Your task to perform on an android device: turn on the 12-hour format for clock Image 0: 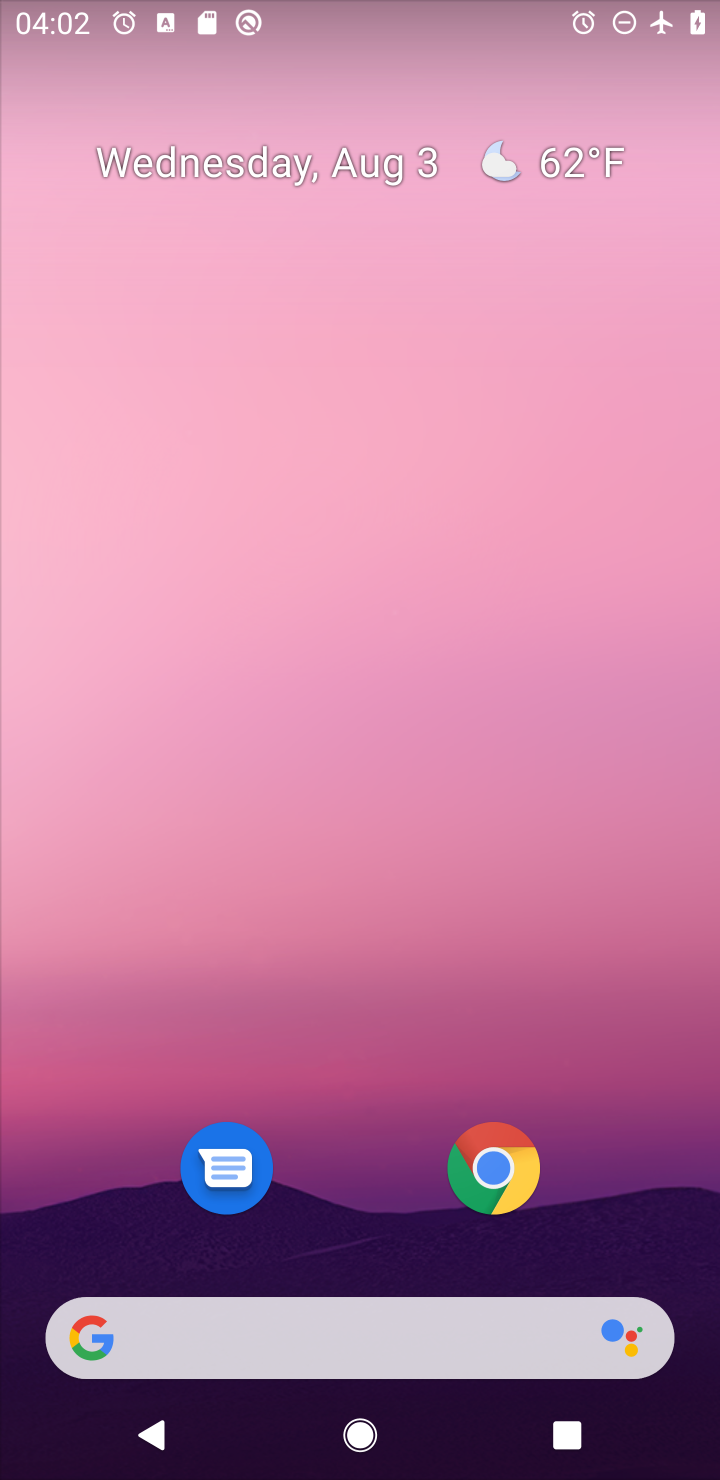
Step 0: drag from (659, 1157) to (620, 195)
Your task to perform on an android device: turn on the 12-hour format for clock Image 1: 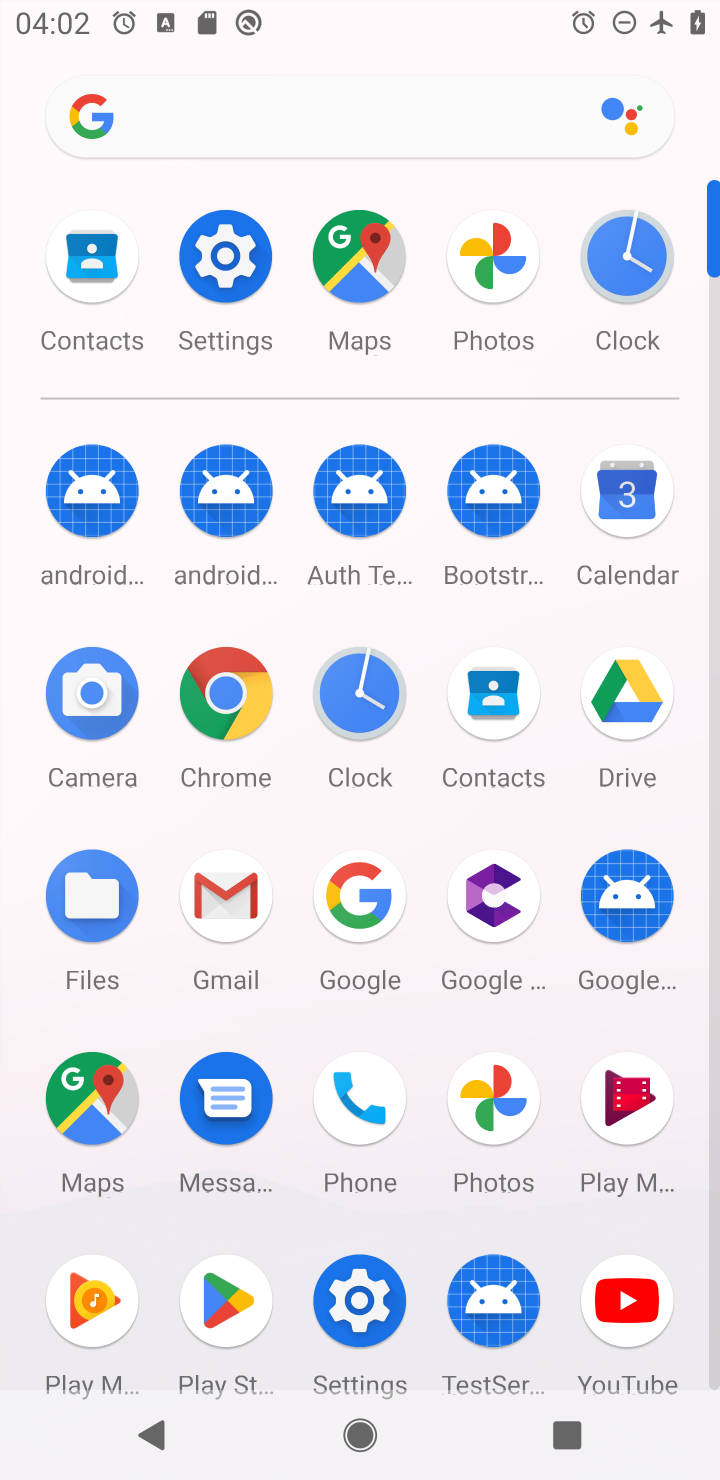
Step 1: click (349, 691)
Your task to perform on an android device: turn on the 12-hour format for clock Image 2: 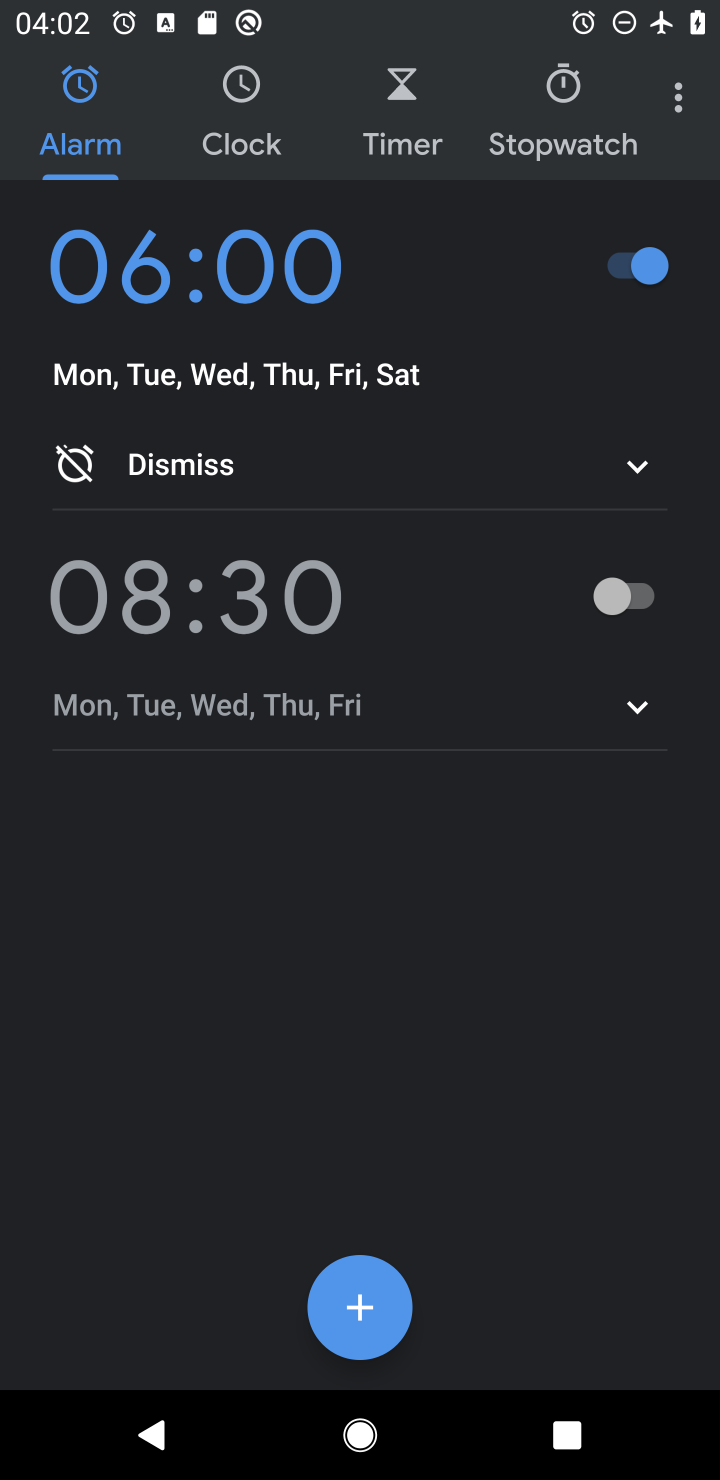
Step 2: click (675, 112)
Your task to perform on an android device: turn on the 12-hour format for clock Image 3: 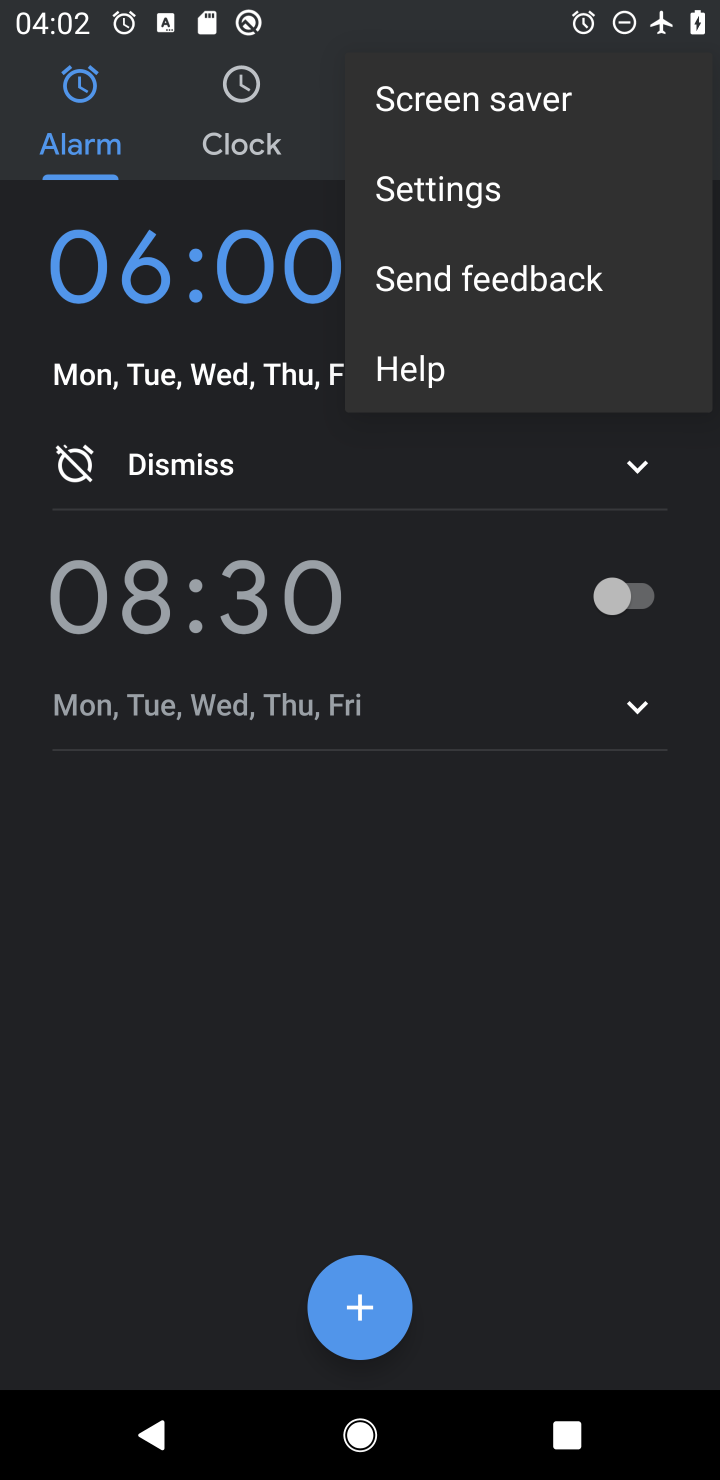
Step 3: click (424, 190)
Your task to perform on an android device: turn on the 12-hour format for clock Image 4: 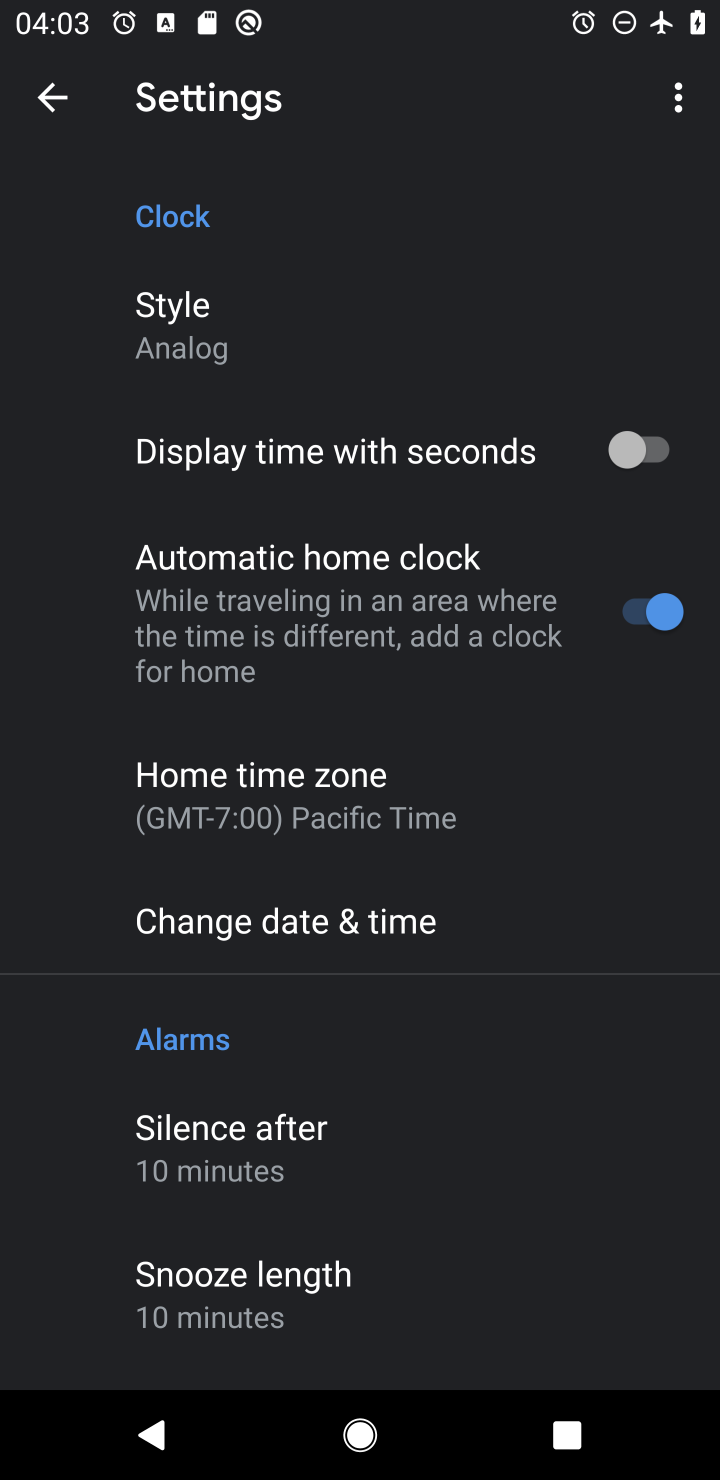
Step 4: click (315, 935)
Your task to perform on an android device: turn on the 12-hour format for clock Image 5: 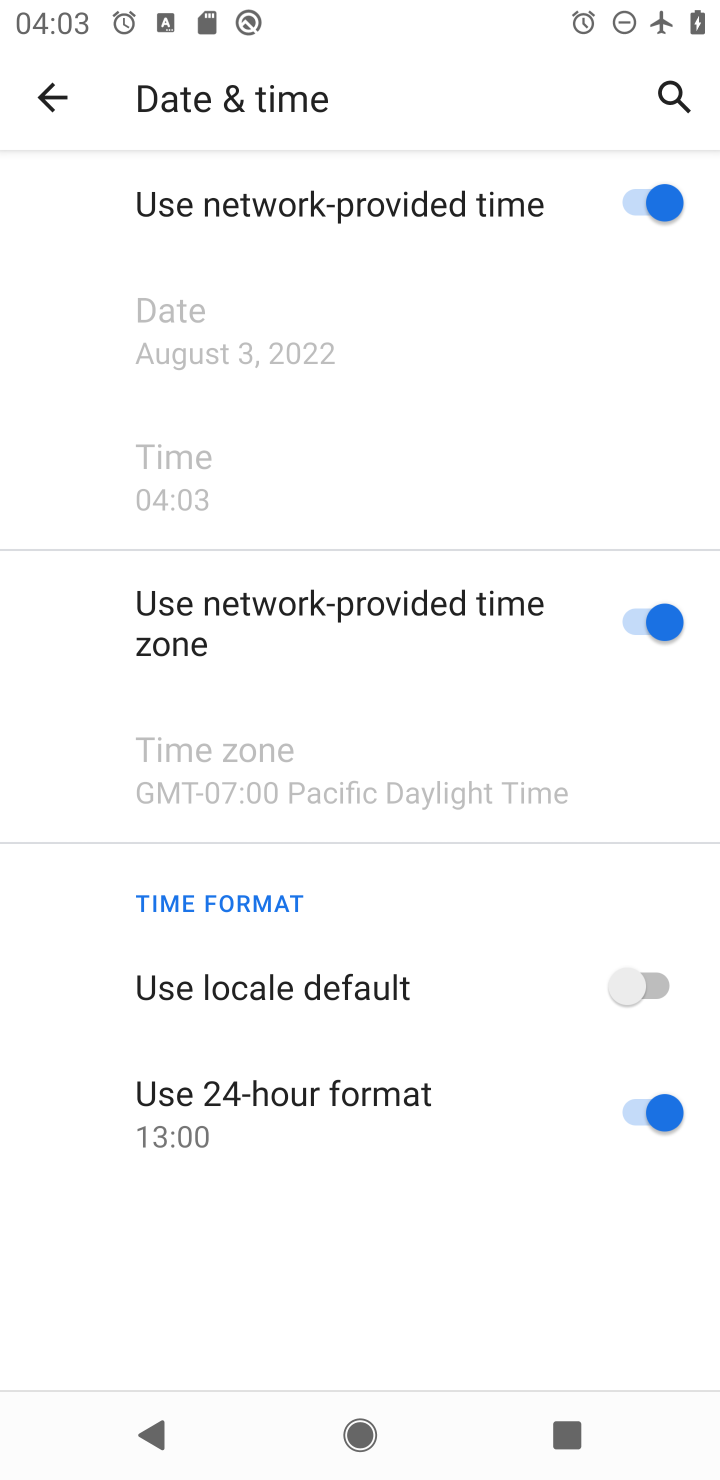
Step 5: click (660, 982)
Your task to perform on an android device: turn on the 12-hour format for clock Image 6: 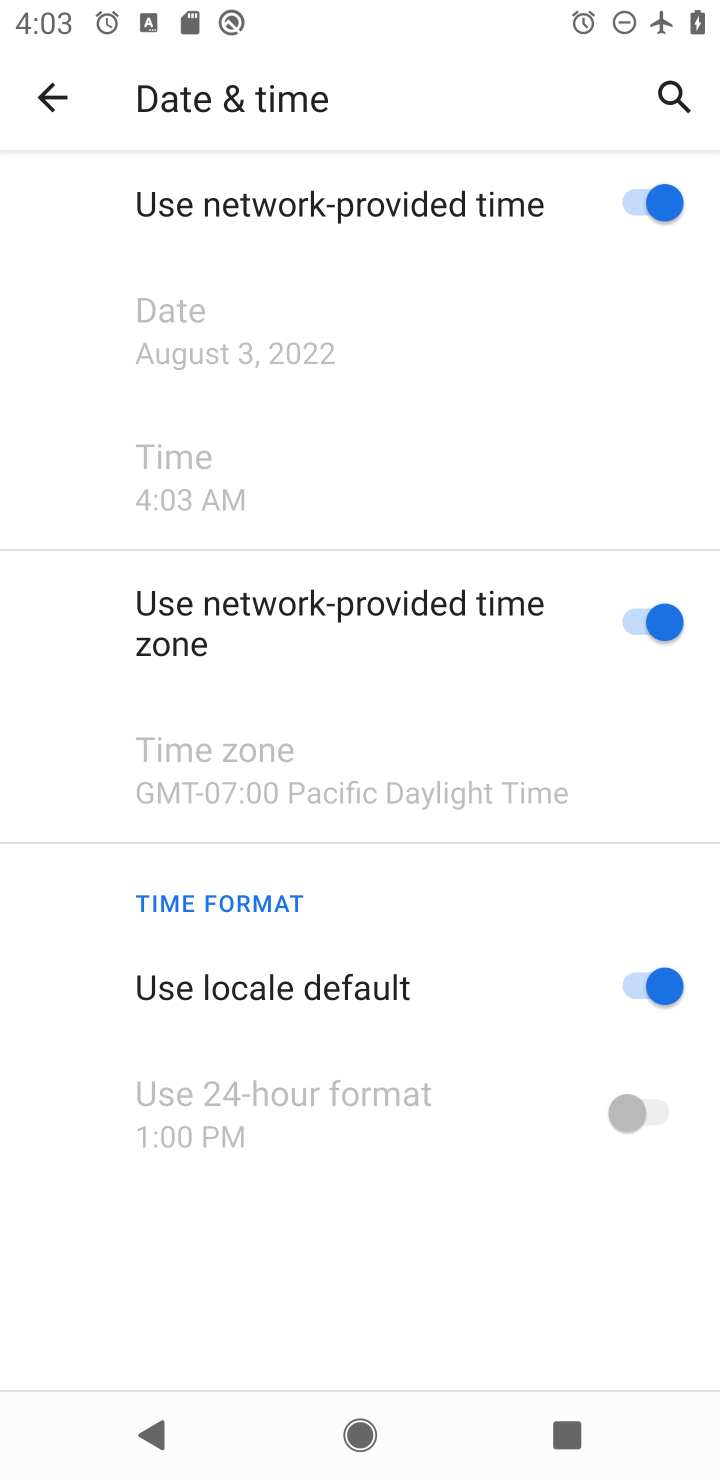
Step 6: task complete